Your task to perform on an android device: Open the map Image 0: 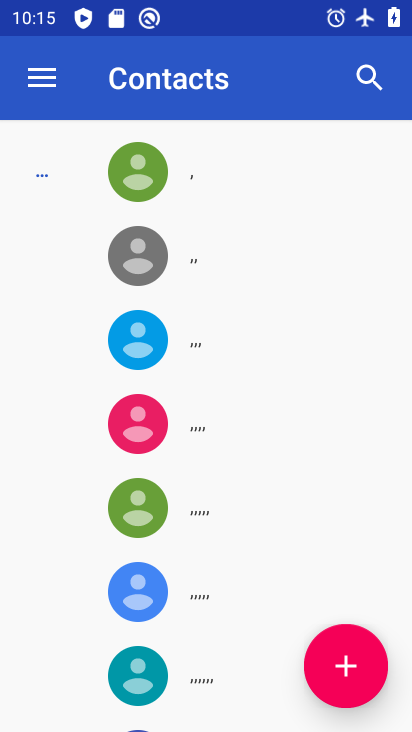
Step 0: press home button
Your task to perform on an android device: Open the map Image 1: 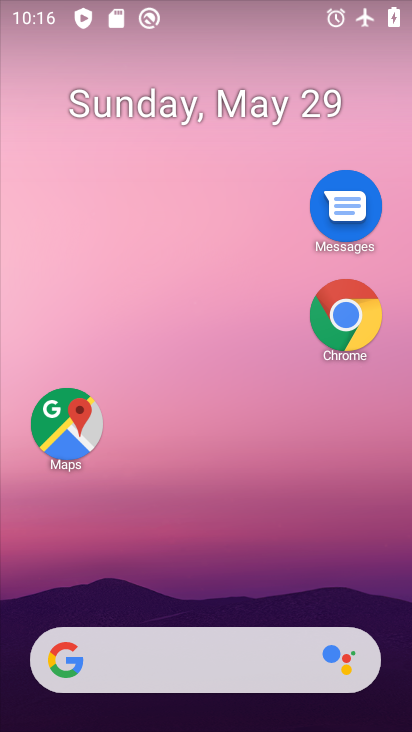
Step 1: click (28, 395)
Your task to perform on an android device: Open the map Image 2: 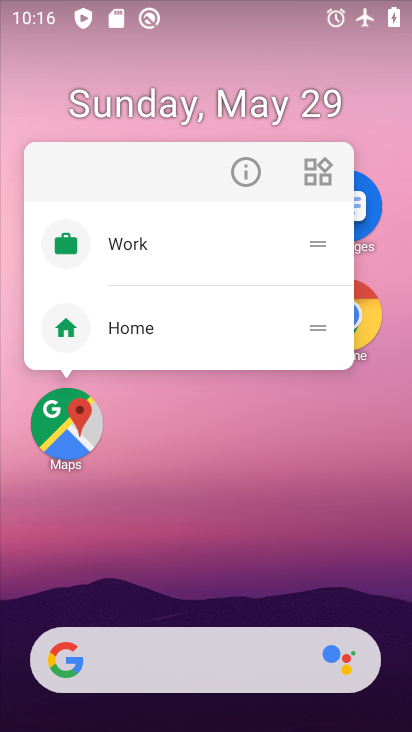
Step 2: click (60, 440)
Your task to perform on an android device: Open the map Image 3: 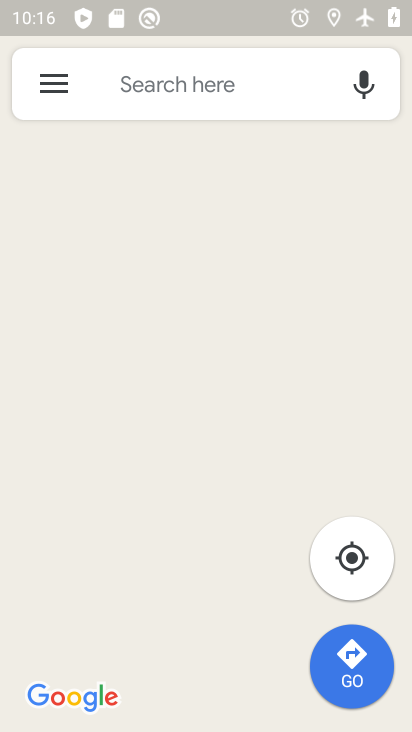
Step 3: task complete